Your task to perform on an android device: Open settings Image 0: 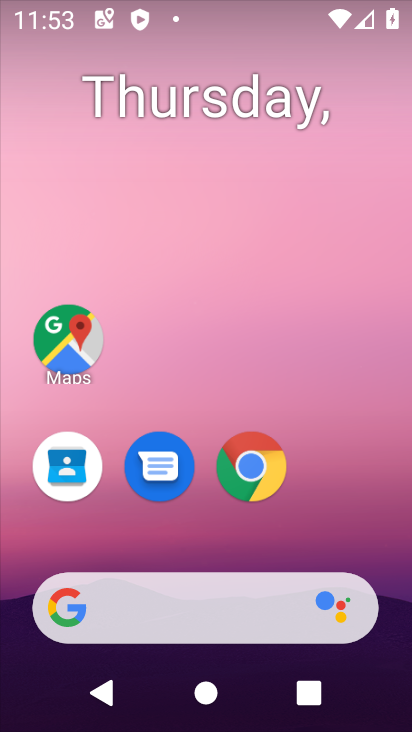
Step 0: drag from (191, 550) to (245, 135)
Your task to perform on an android device: Open settings Image 1: 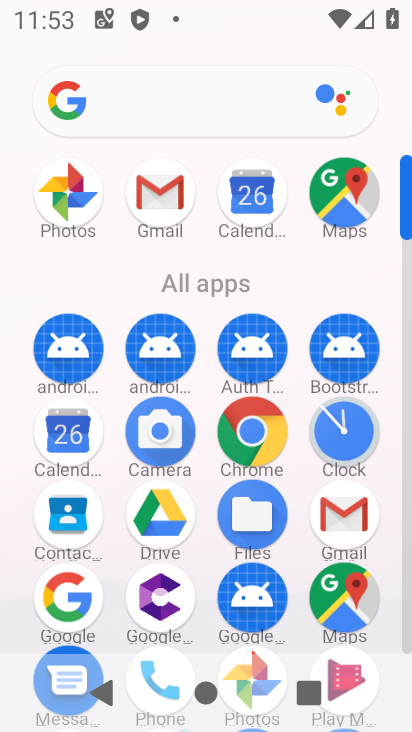
Step 1: drag from (245, 543) to (232, 224)
Your task to perform on an android device: Open settings Image 2: 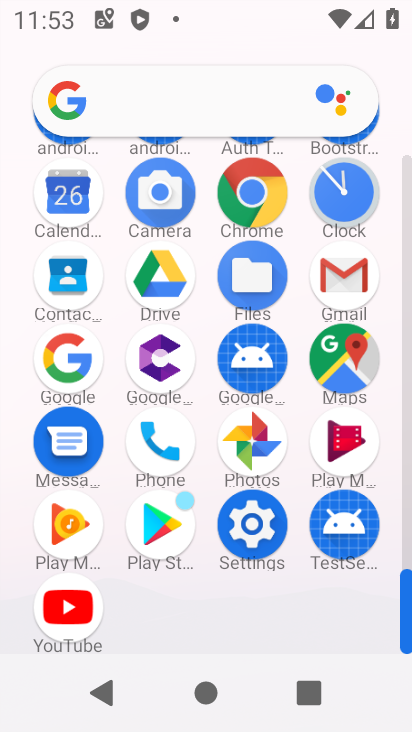
Step 2: click (262, 538)
Your task to perform on an android device: Open settings Image 3: 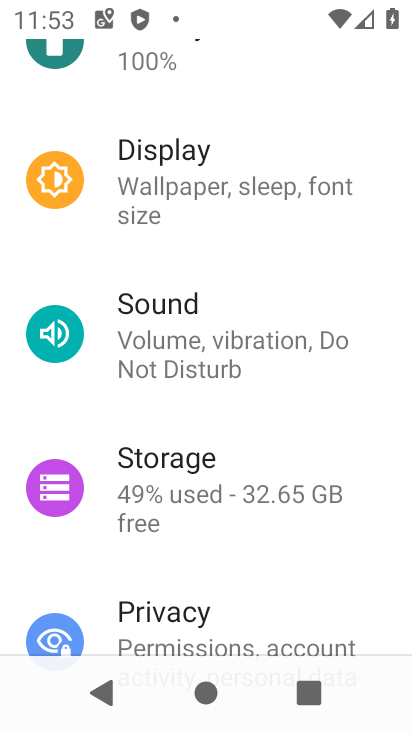
Step 3: task complete